Your task to perform on an android device: install app "Grab" Image 0: 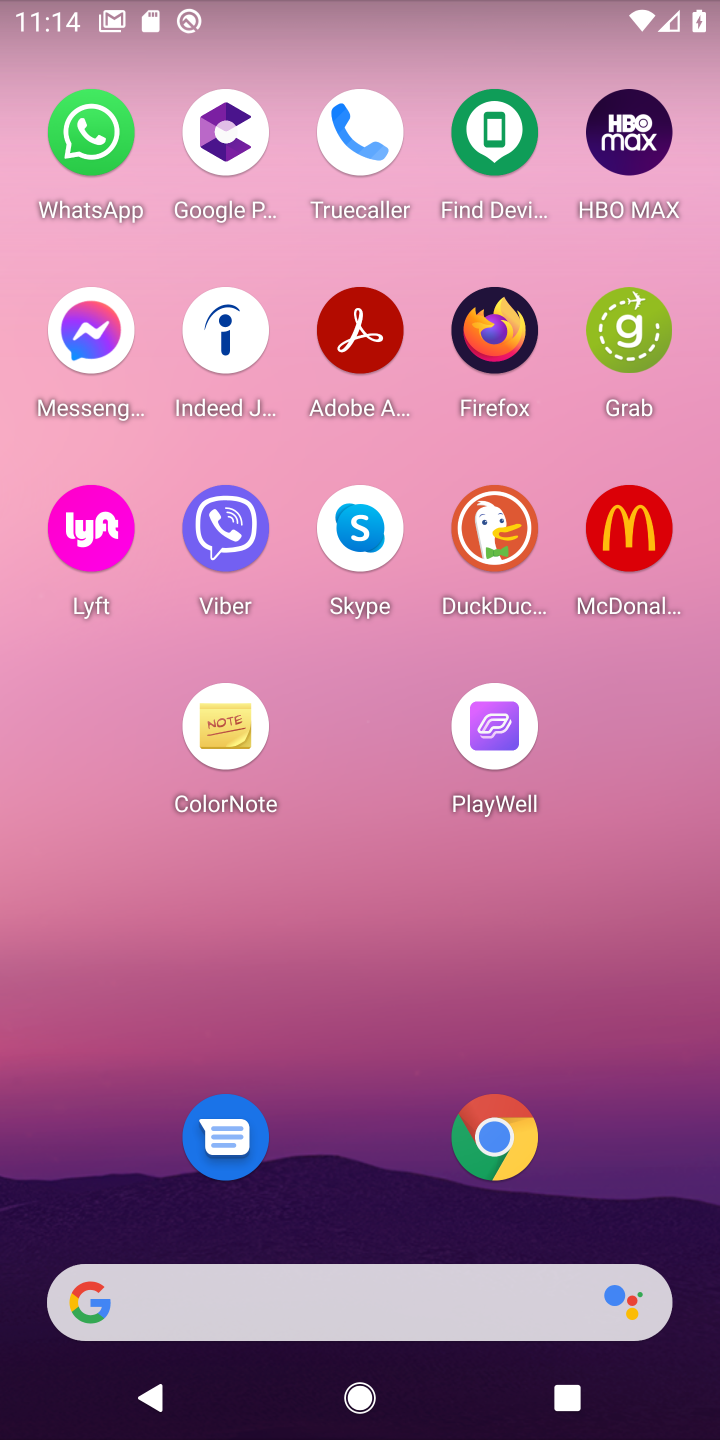
Step 0: drag from (376, 463) to (402, 145)
Your task to perform on an android device: install app "Grab" Image 1: 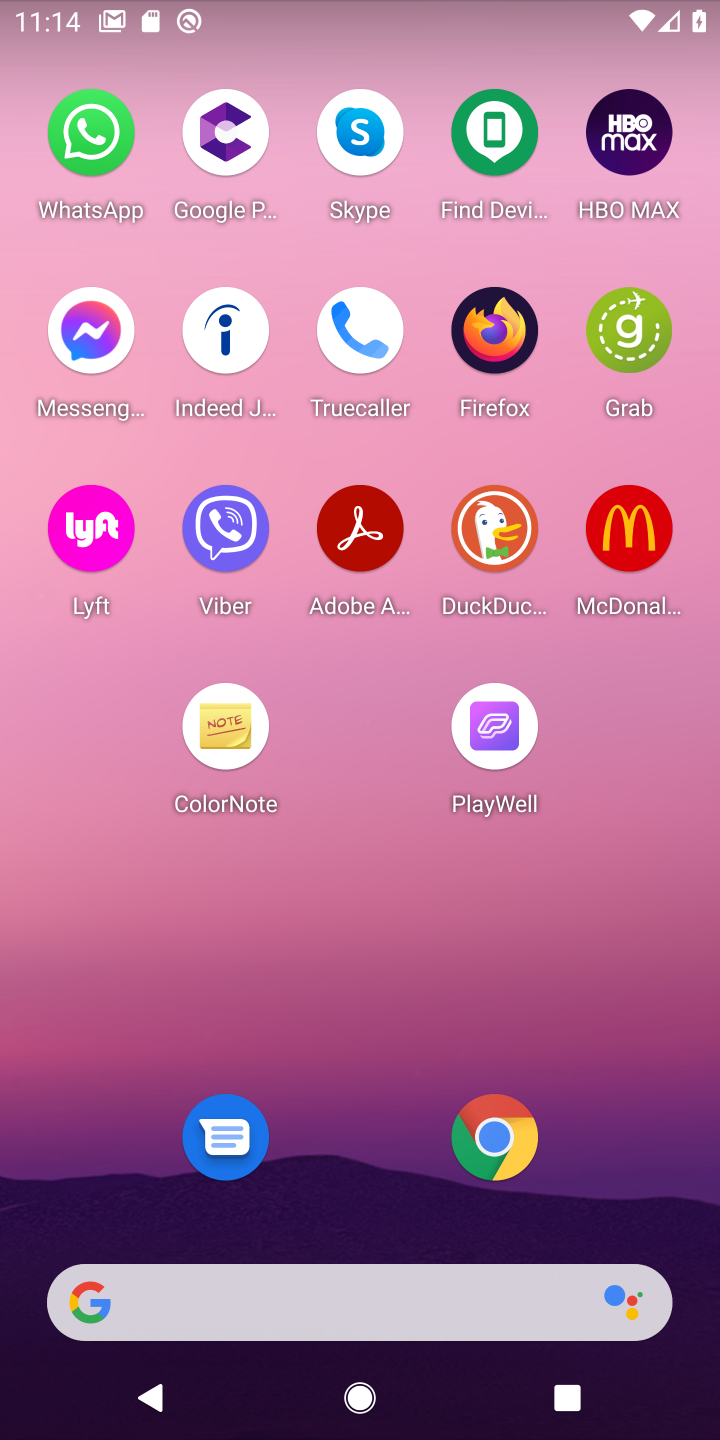
Step 1: drag from (366, 1206) to (391, 403)
Your task to perform on an android device: install app "Grab" Image 2: 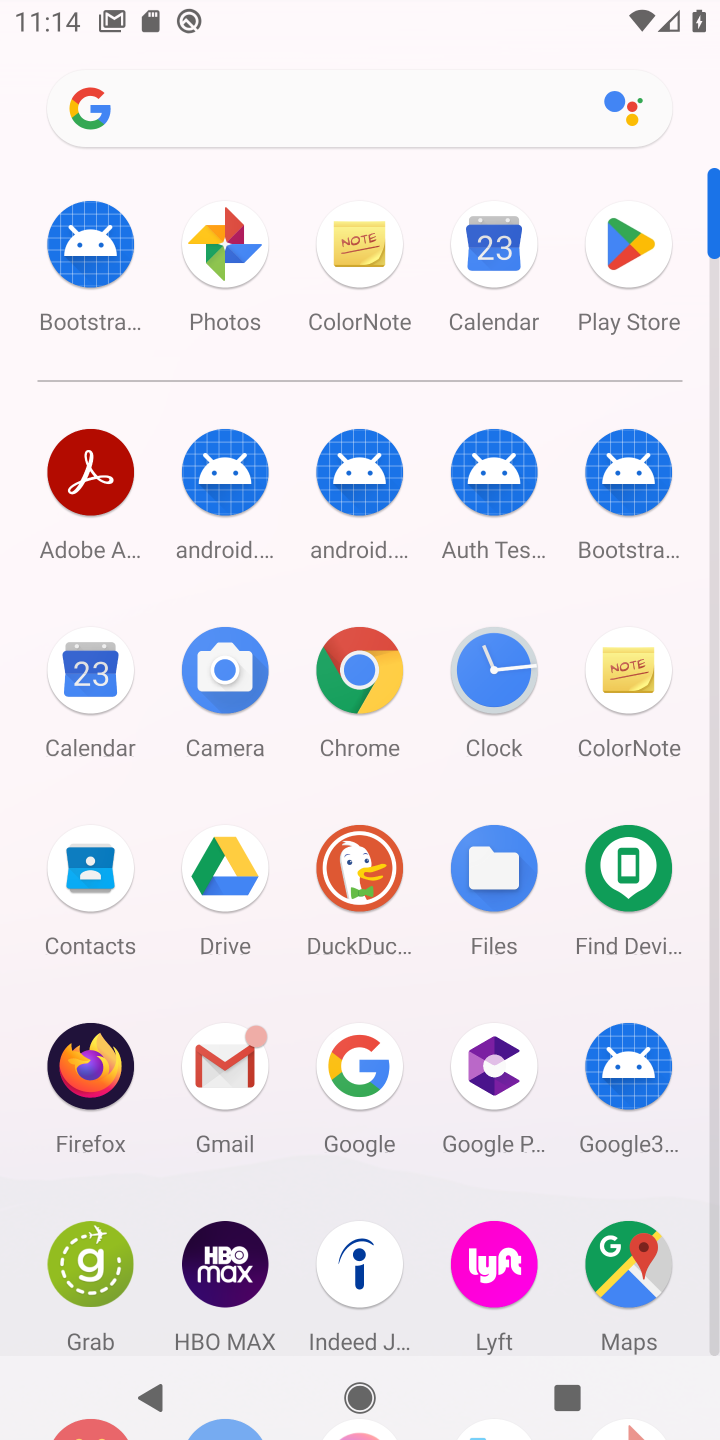
Step 2: click (621, 246)
Your task to perform on an android device: install app "Grab" Image 3: 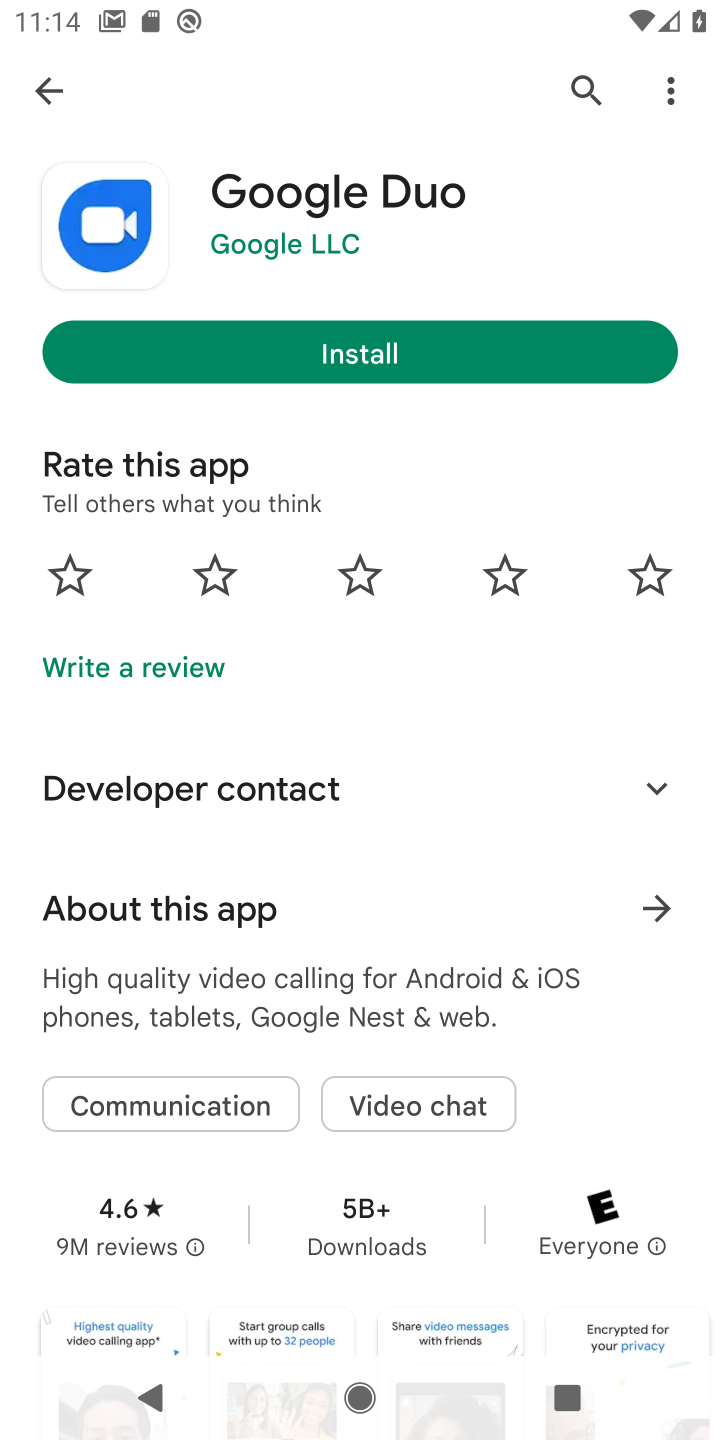
Step 3: click (43, 85)
Your task to perform on an android device: install app "Grab" Image 4: 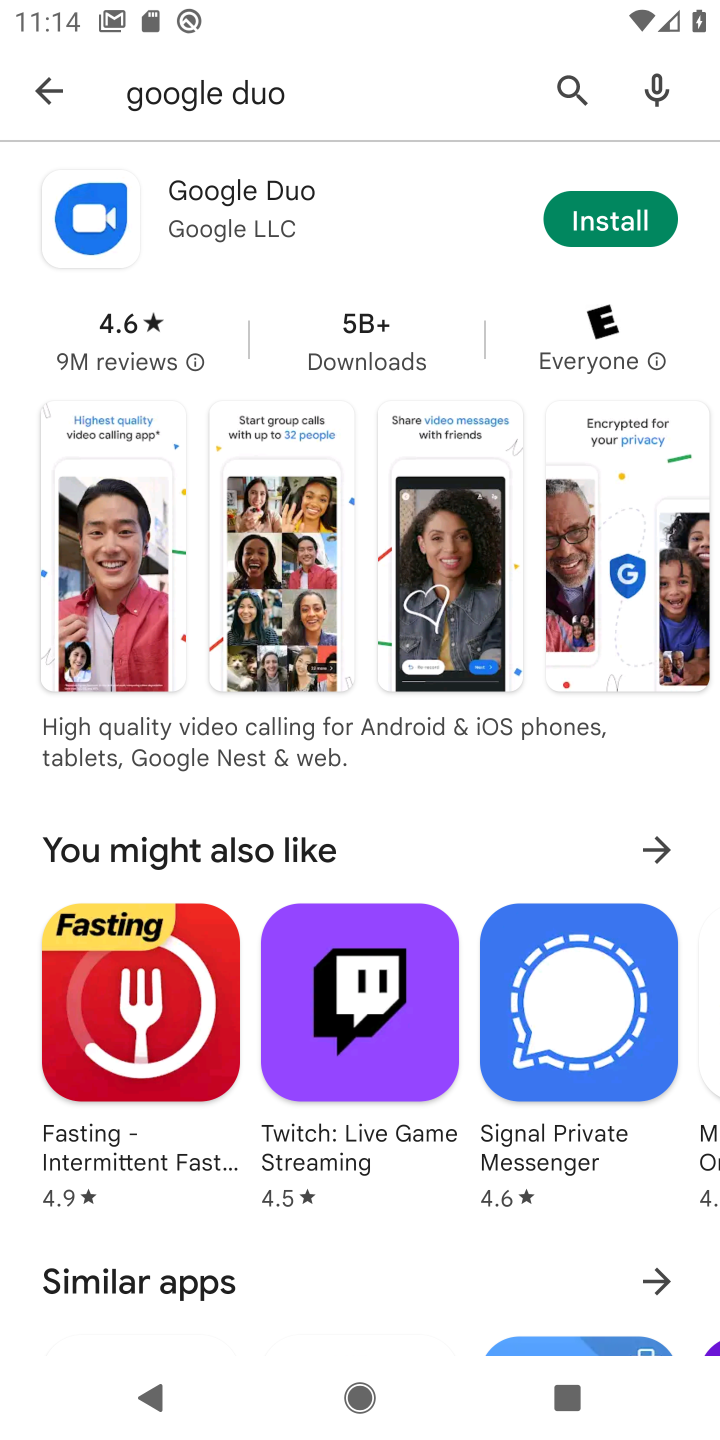
Step 4: click (254, 100)
Your task to perform on an android device: install app "Grab" Image 5: 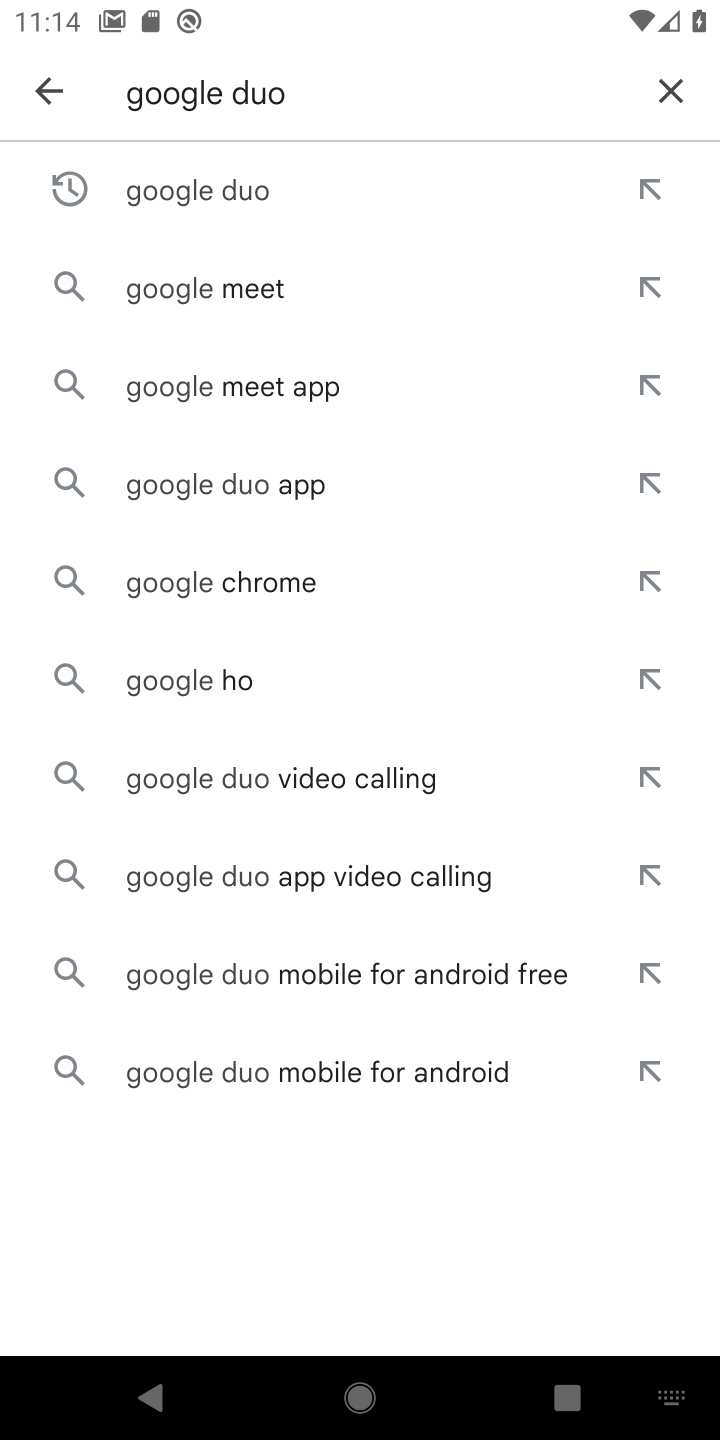
Step 5: click (669, 79)
Your task to perform on an android device: install app "Grab" Image 6: 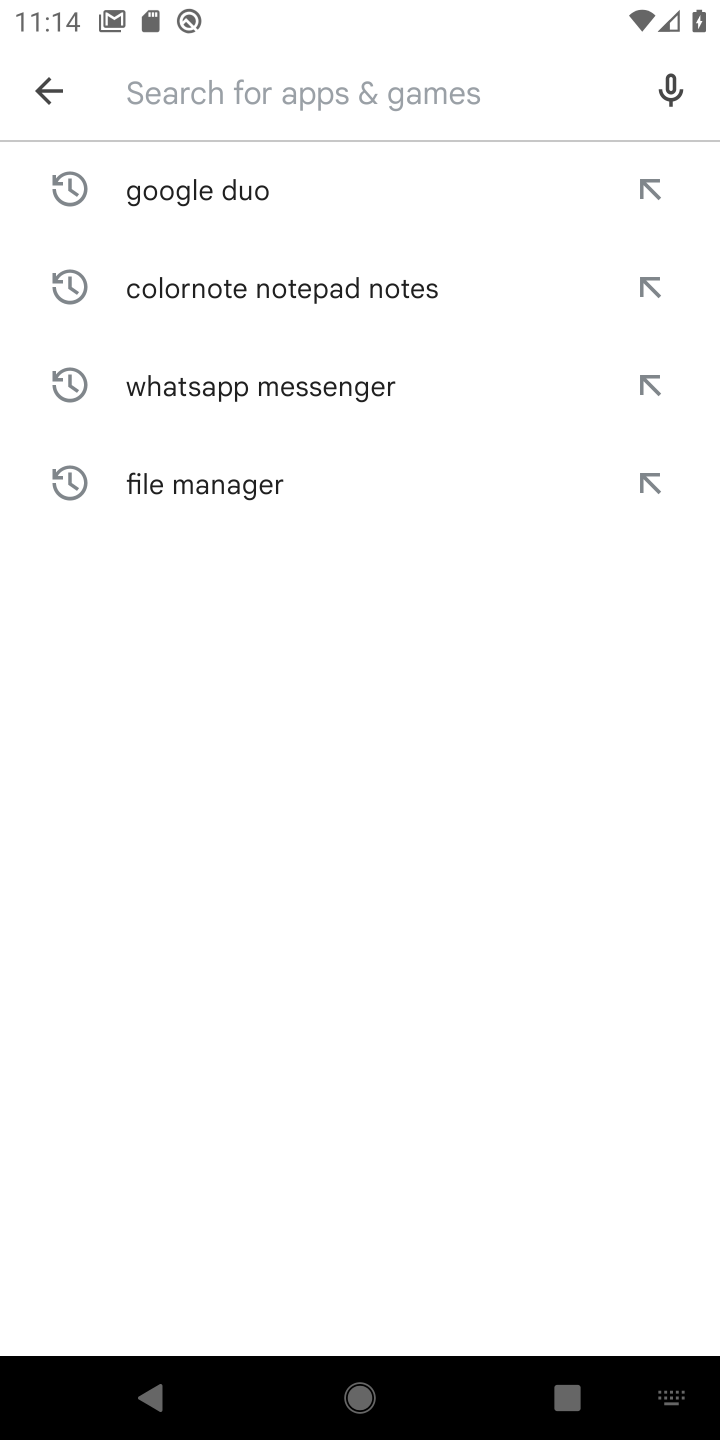
Step 6: type "grab"
Your task to perform on an android device: install app "Grab" Image 7: 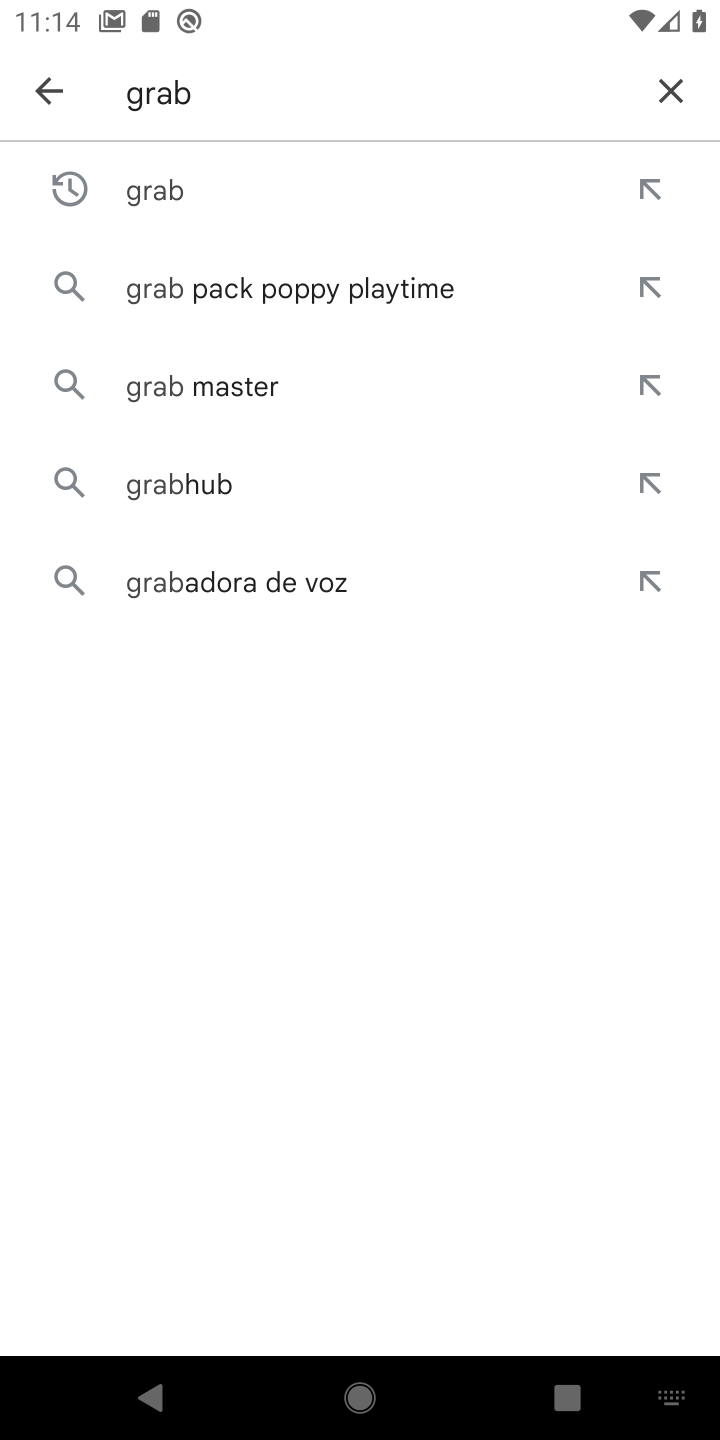
Step 7: click (241, 206)
Your task to perform on an android device: install app "Grab" Image 8: 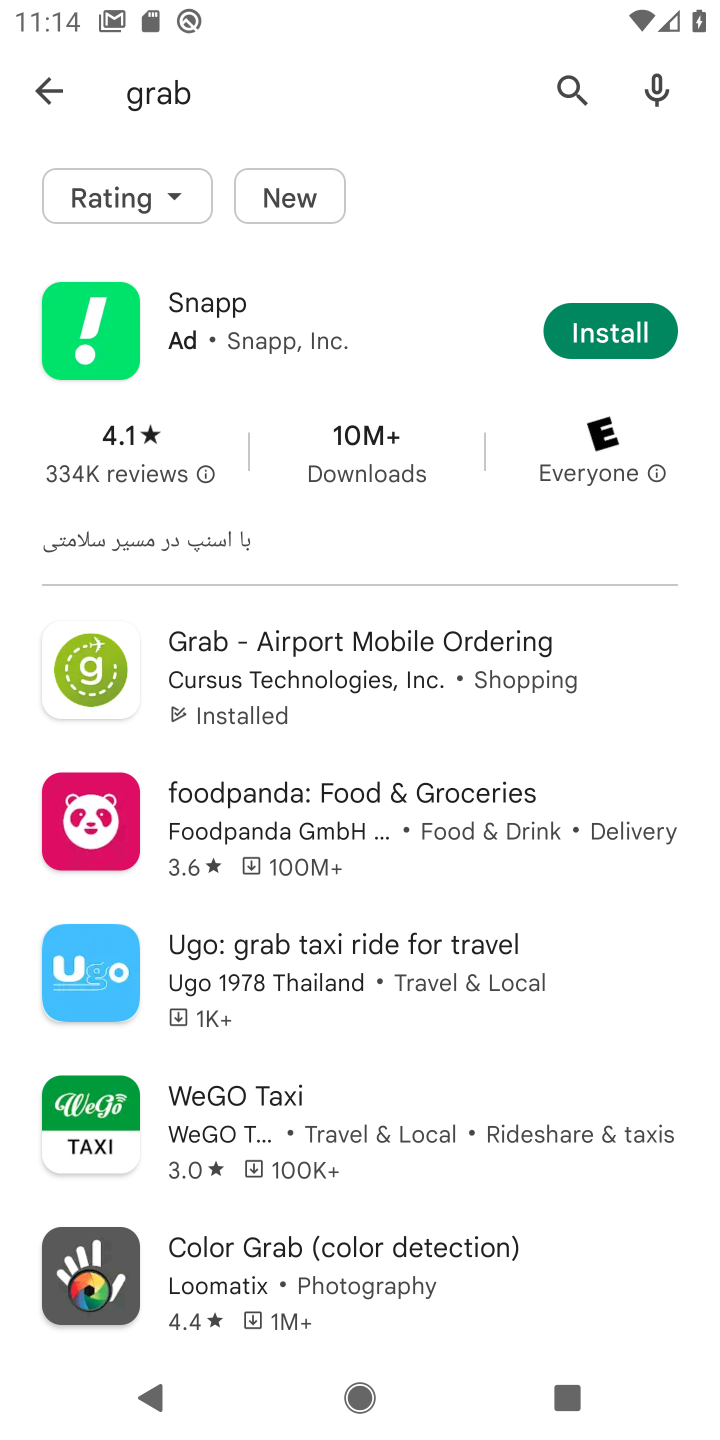
Step 8: click (639, 327)
Your task to perform on an android device: install app "Grab" Image 9: 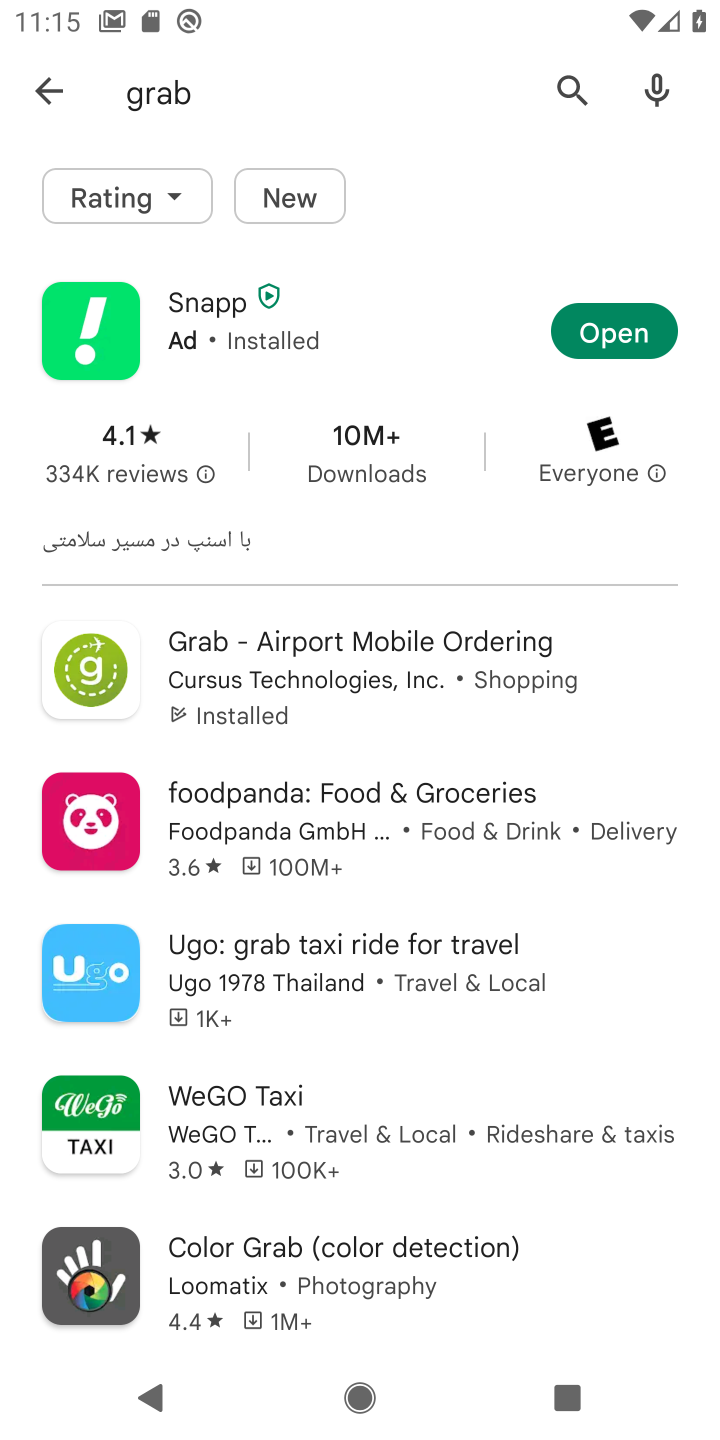
Step 9: task complete